Your task to perform on an android device: turn on translation in the chrome app Image 0: 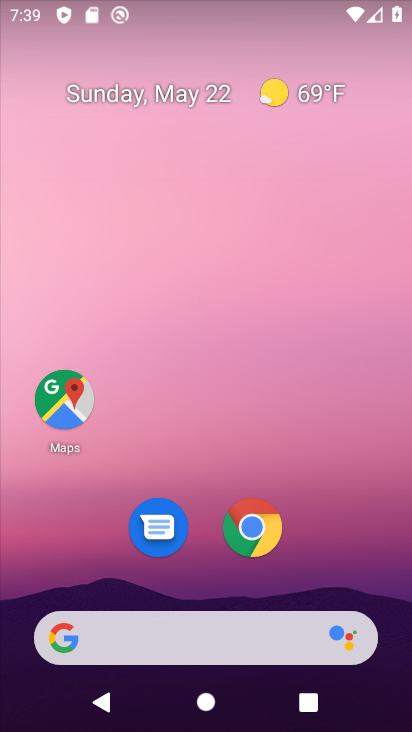
Step 0: press home button
Your task to perform on an android device: turn on translation in the chrome app Image 1: 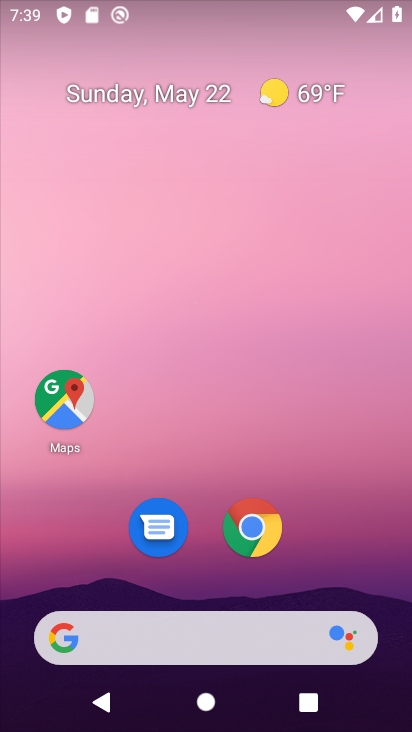
Step 1: click (239, 528)
Your task to perform on an android device: turn on translation in the chrome app Image 2: 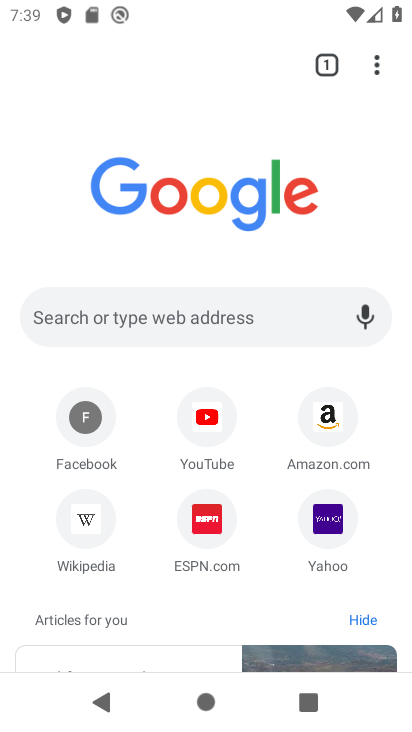
Step 2: click (379, 64)
Your task to perform on an android device: turn on translation in the chrome app Image 3: 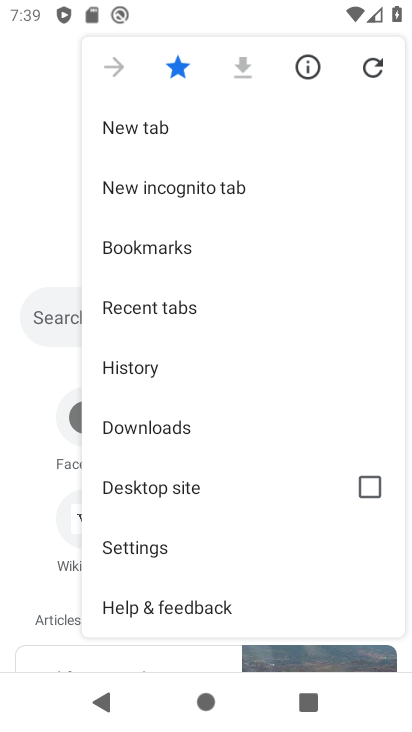
Step 3: click (169, 547)
Your task to perform on an android device: turn on translation in the chrome app Image 4: 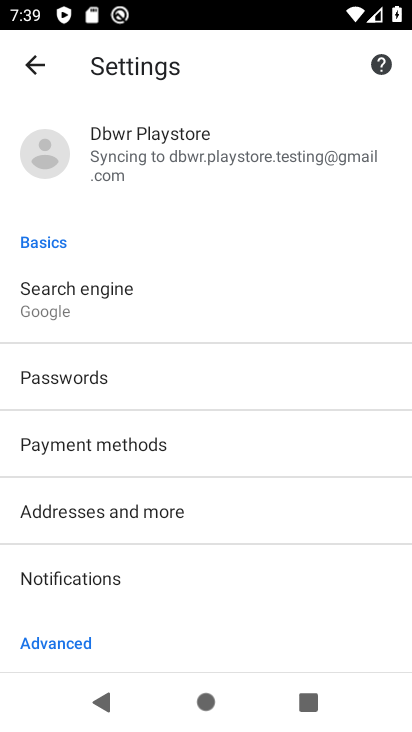
Step 4: drag from (171, 622) to (206, 211)
Your task to perform on an android device: turn on translation in the chrome app Image 5: 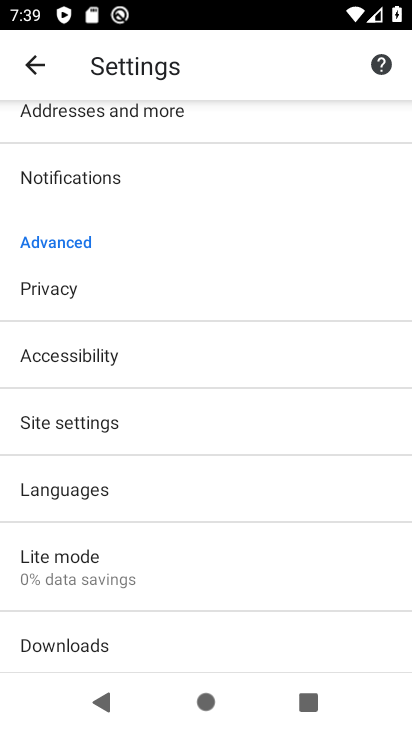
Step 5: click (111, 493)
Your task to perform on an android device: turn on translation in the chrome app Image 6: 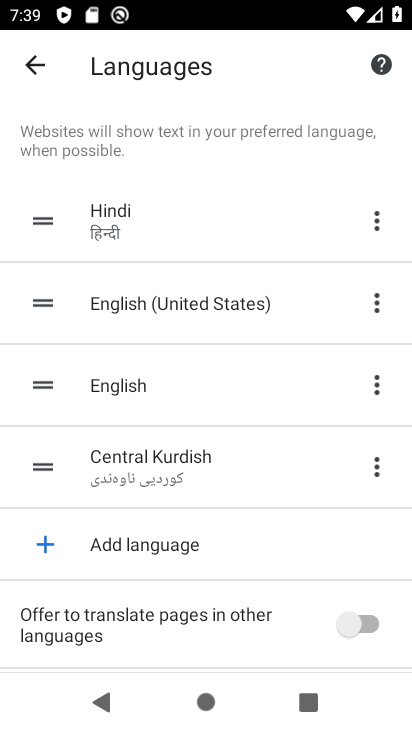
Step 6: click (370, 617)
Your task to perform on an android device: turn on translation in the chrome app Image 7: 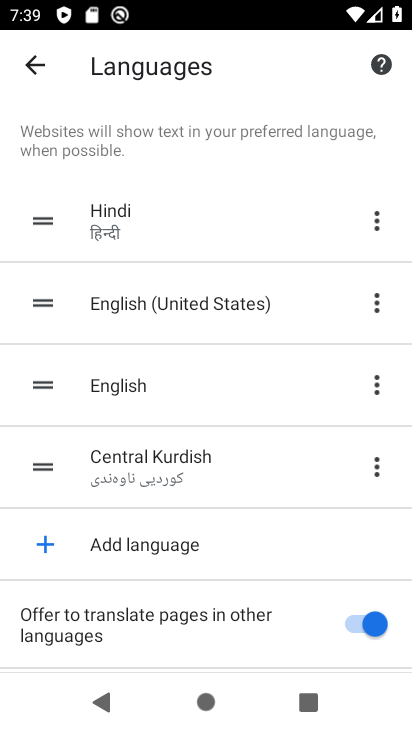
Step 7: task complete